Your task to perform on an android device: What's the weather going to be this weekend? Image 0: 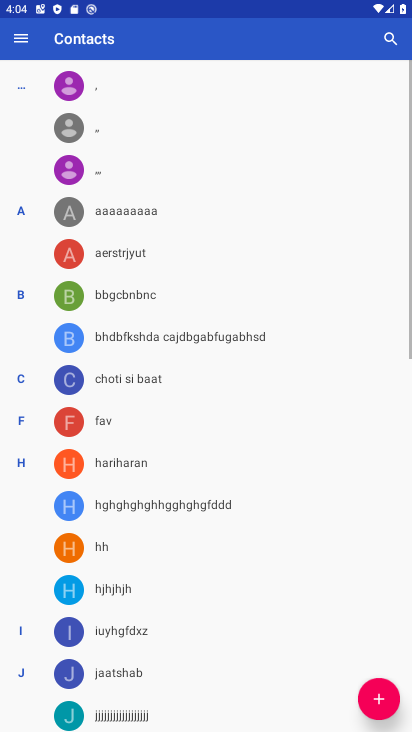
Step 0: drag from (283, 671) to (284, 239)
Your task to perform on an android device: What's the weather going to be this weekend? Image 1: 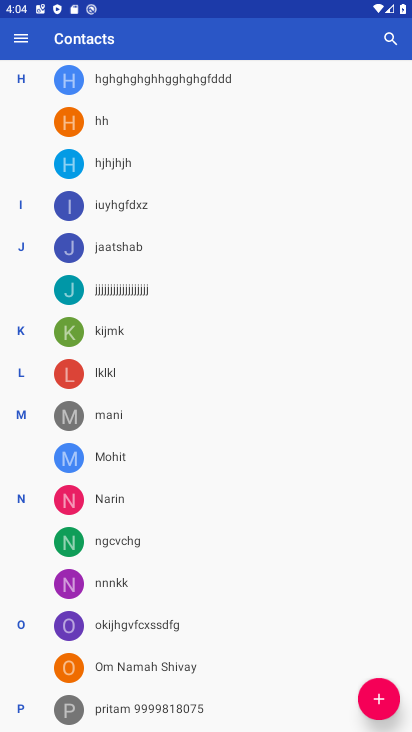
Step 1: press home button
Your task to perform on an android device: What's the weather going to be this weekend? Image 2: 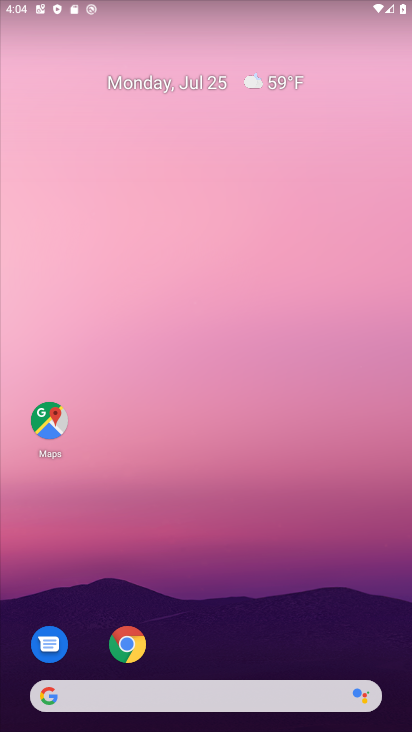
Step 2: drag from (229, 678) to (206, 276)
Your task to perform on an android device: What's the weather going to be this weekend? Image 3: 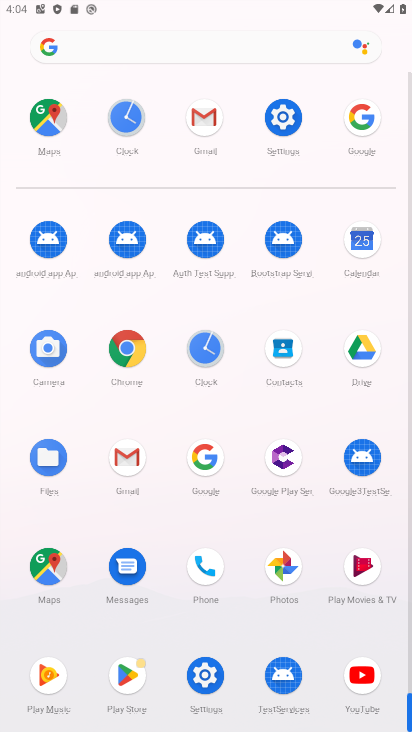
Step 3: click (216, 464)
Your task to perform on an android device: What's the weather going to be this weekend? Image 4: 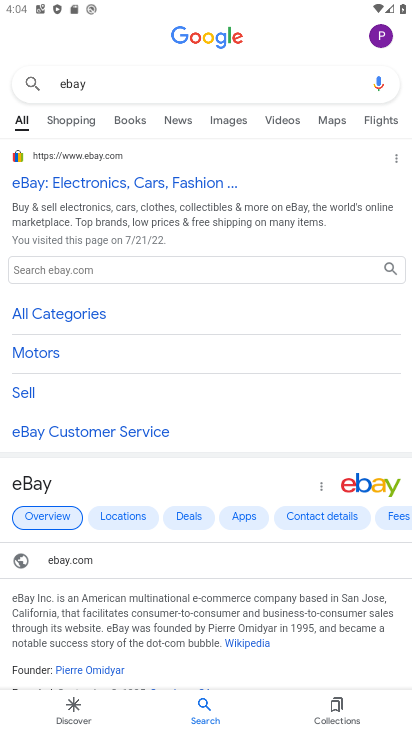
Step 4: click (104, 82)
Your task to perform on an android device: What's the weather going to be this weekend? Image 5: 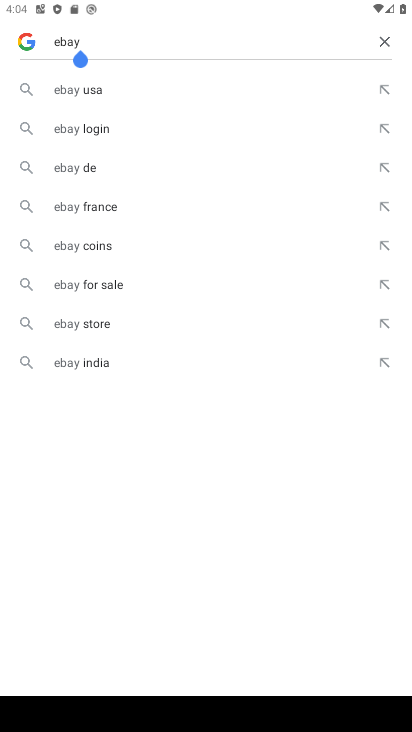
Step 5: click (381, 41)
Your task to perform on an android device: What's the weather going to be this weekend? Image 6: 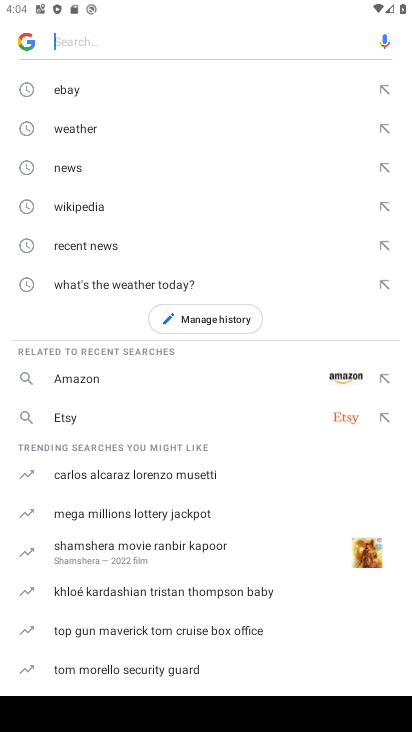
Step 6: click (89, 133)
Your task to perform on an android device: What's the weather going to be this weekend? Image 7: 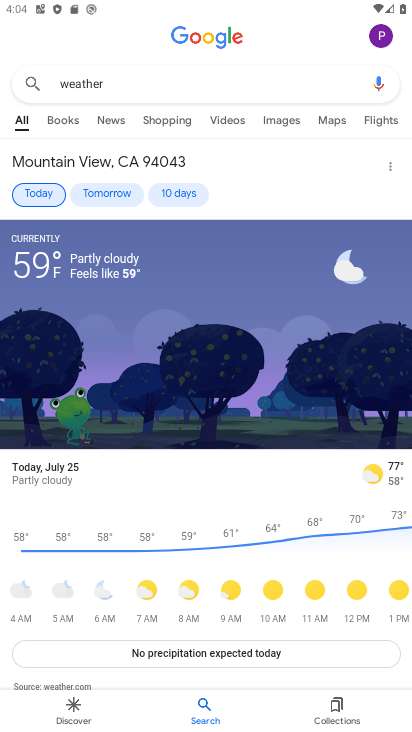
Step 7: click (166, 193)
Your task to perform on an android device: What's the weather going to be this weekend? Image 8: 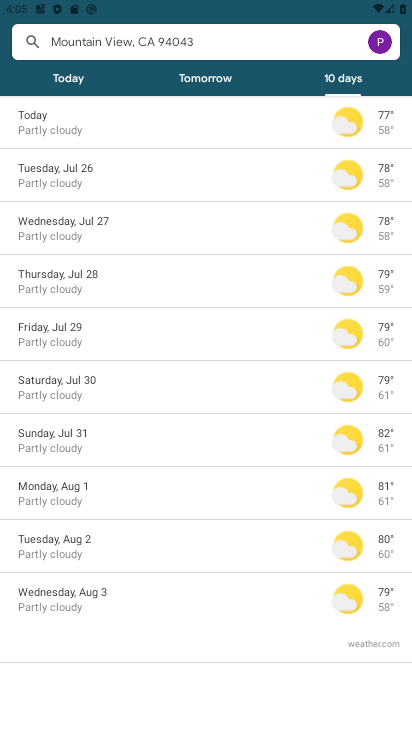
Step 8: task complete